Your task to perform on an android device: toggle translation in the chrome app Image 0: 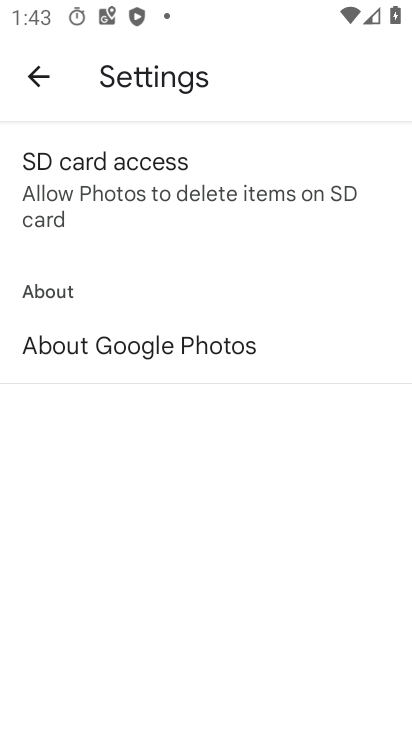
Step 0: press home button
Your task to perform on an android device: toggle translation in the chrome app Image 1: 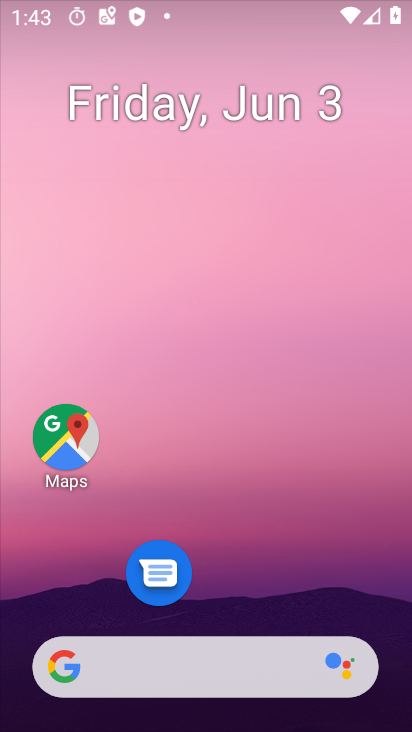
Step 1: drag from (268, 642) to (326, 145)
Your task to perform on an android device: toggle translation in the chrome app Image 2: 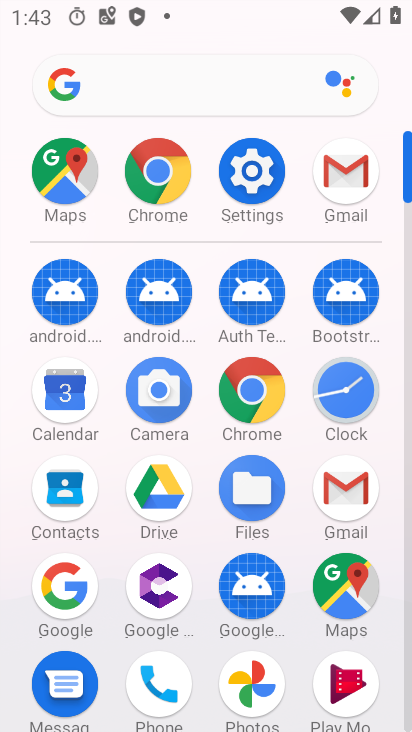
Step 2: click (258, 365)
Your task to perform on an android device: toggle translation in the chrome app Image 3: 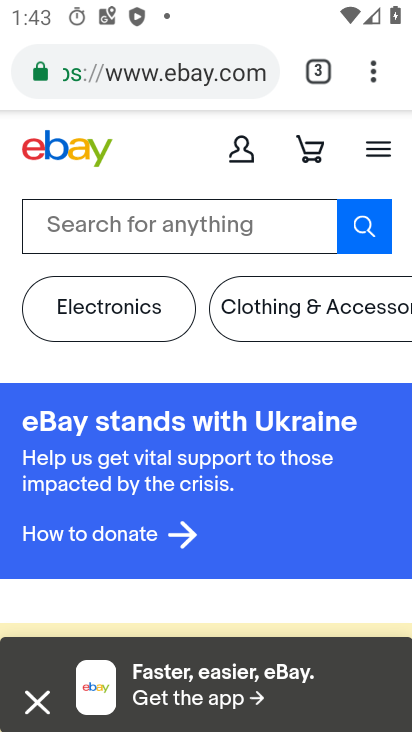
Step 3: drag from (380, 72) to (148, 561)
Your task to perform on an android device: toggle translation in the chrome app Image 4: 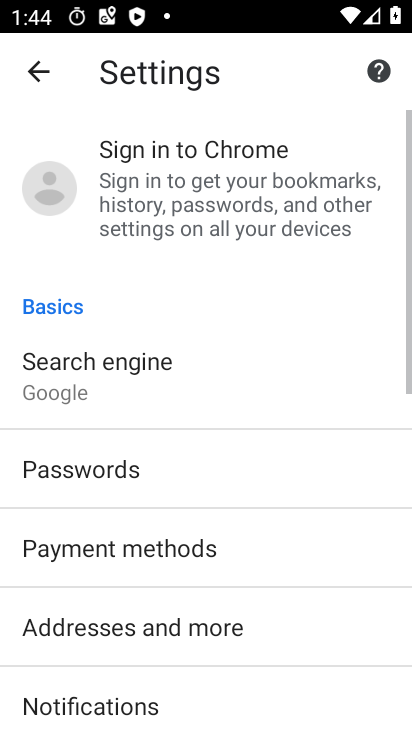
Step 4: drag from (228, 714) to (211, 170)
Your task to perform on an android device: toggle translation in the chrome app Image 5: 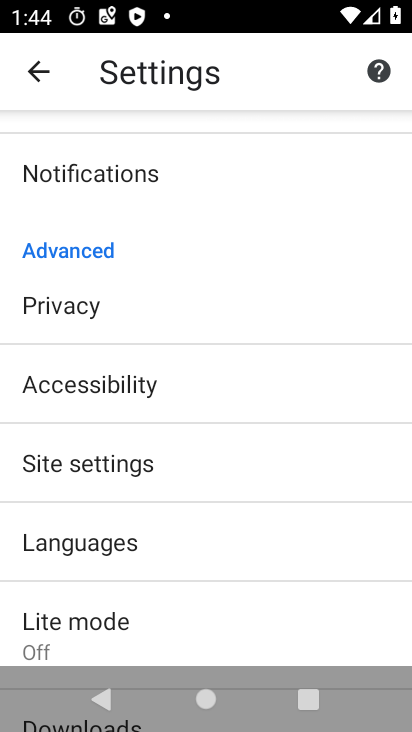
Step 5: click (177, 540)
Your task to perform on an android device: toggle translation in the chrome app Image 6: 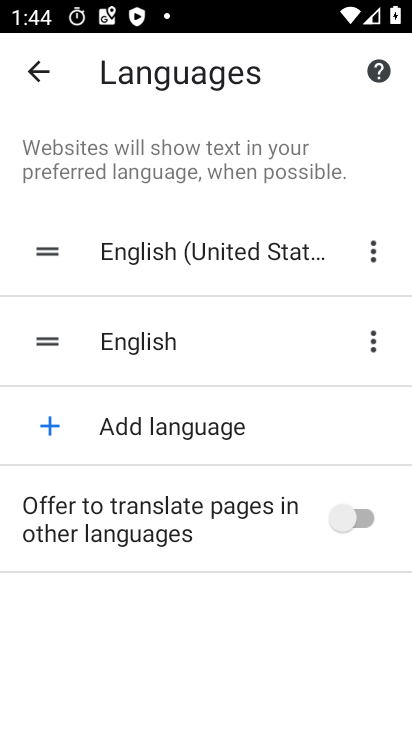
Step 6: click (348, 521)
Your task to perform on an android device: toggle translation in the chrome app Image 7: 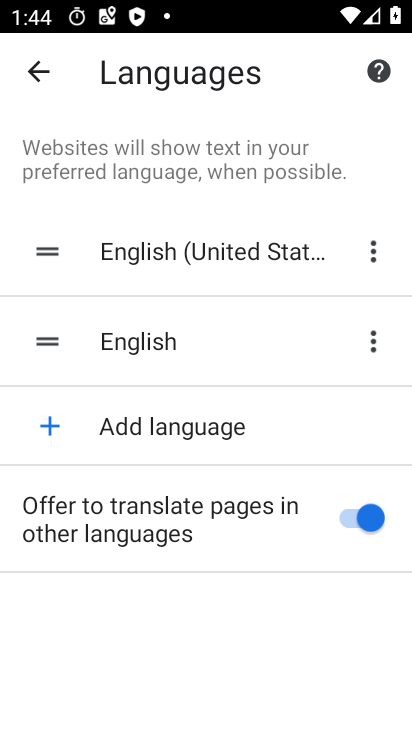
Step 7: task complete